Your task to perform on an android device: visit the assistant section in the google photos Image 0: 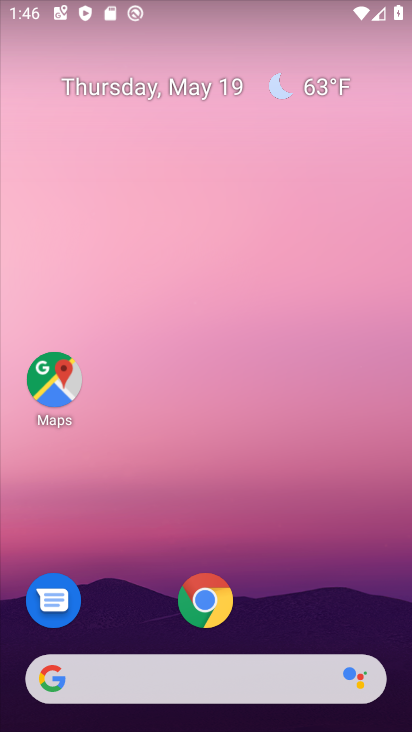
Step 0: drag from (319, 618) to (275, 83)
Your task to perform on an android device: visit the assistant section in the google photos Image 1: 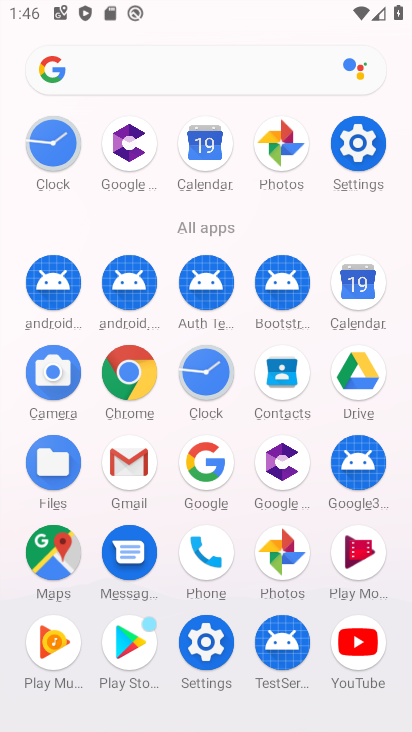
Step 1: click (275, 134)
Your task to perform on an android device: visit the assistant section in the google photos Image 2: 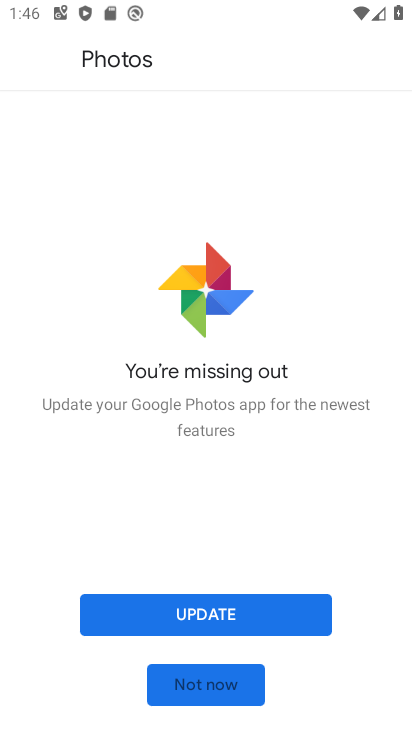
Step 2: click (239, 676)
Your task to perform on an android device: visit the assistant section in the google photos Image 3: 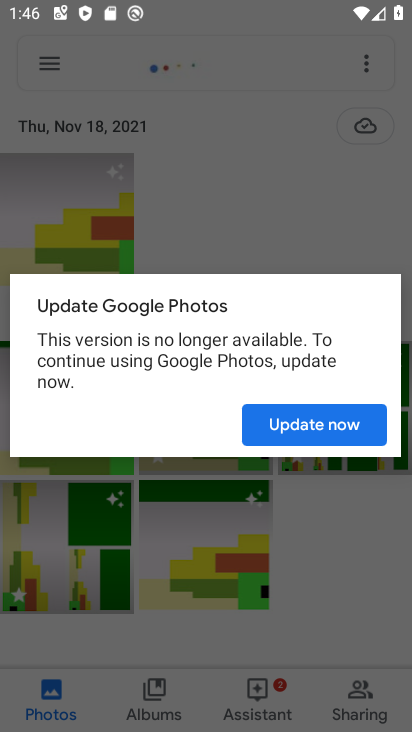
Step 3: click (284, 422)
Your task to perform on an android device: visit the assistant section in the google photos Image 4: 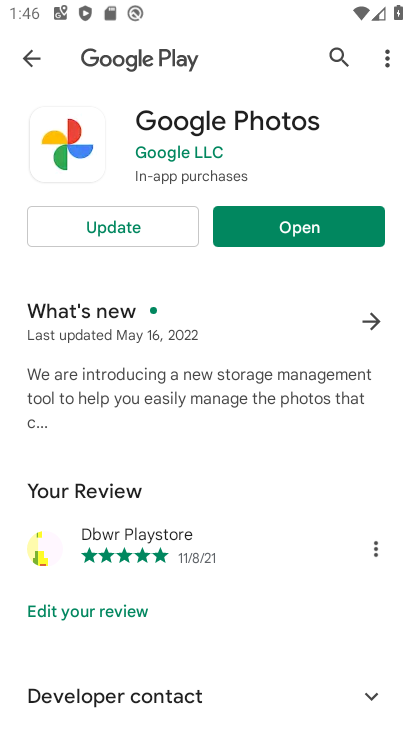
Step 4: click (317, 235)
Your task to perform on an android device: visit the assistant section in the google photos Image 5: 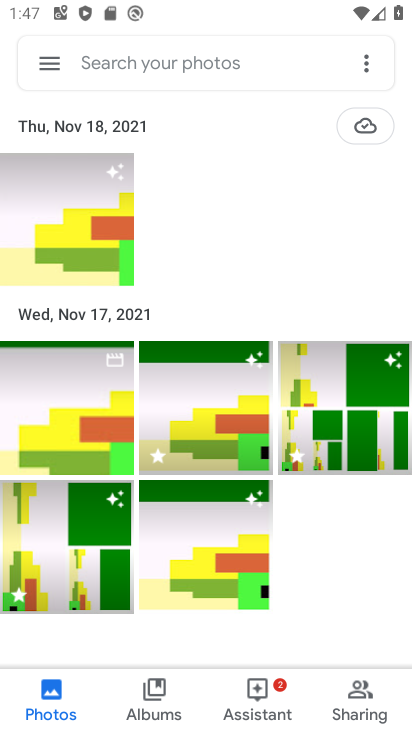
Step 5: click (259, 693)
Your task to perform on an android device: visit the assistant section in the google photos Image 6: 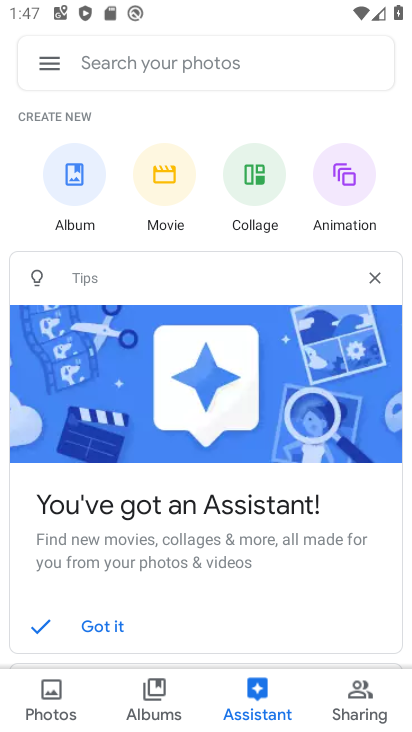
Step 6: task complete